Your task to perform on an android device: turn on translation in the chrome app Image 0: 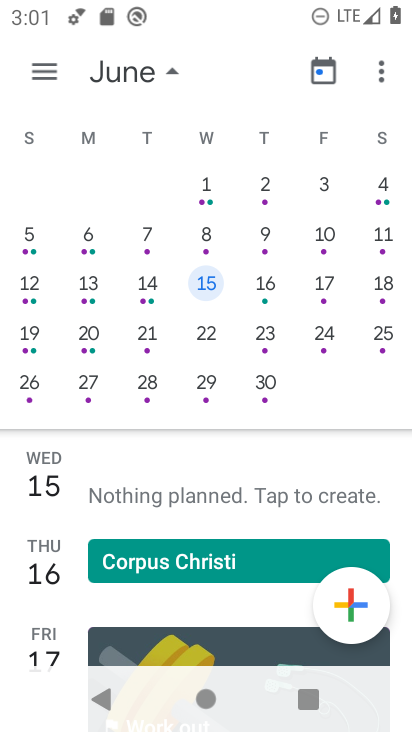
Step 0: press home button
Your task to perform on an android device: turn on translation in the chrome app Image 1: 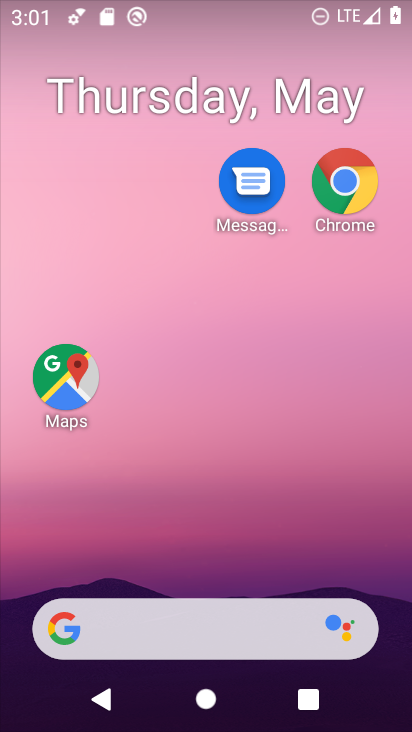
Step 1: drag from (295, 629) to (198, 16)
Your task to perform on an android device: turn on translation in the chrome app Image 2: 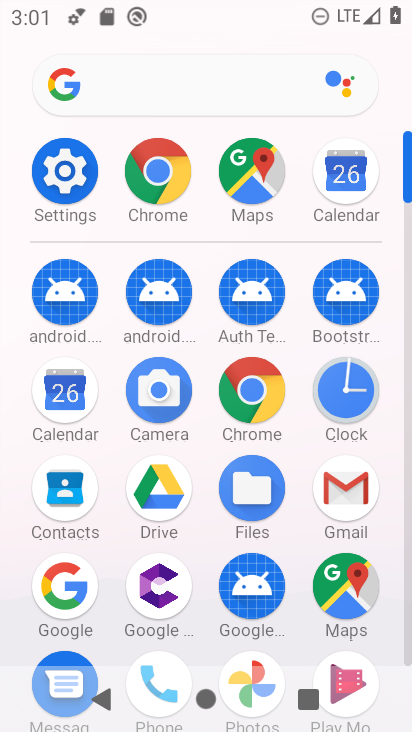
Step 2: click (255, 407)
Your task to perform on an android device: turn on translation in the chrome app Image 3: 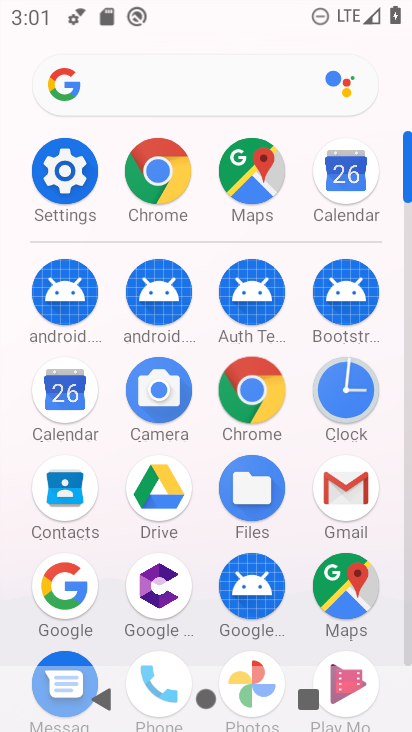
Step 3: click (255, 407)
Your task to perform on an android device: turn on translation in the chrome app Image 4: 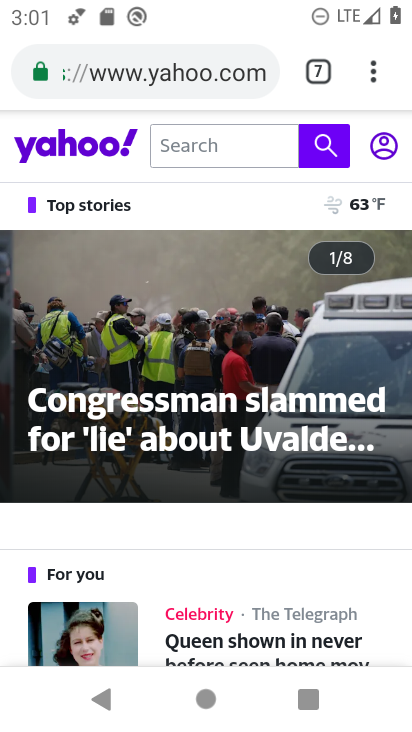
Step 4: drag from (380, 73) to (186, 515)
Your task to perform on an android device: turn on translation in the chrome app Image 5: 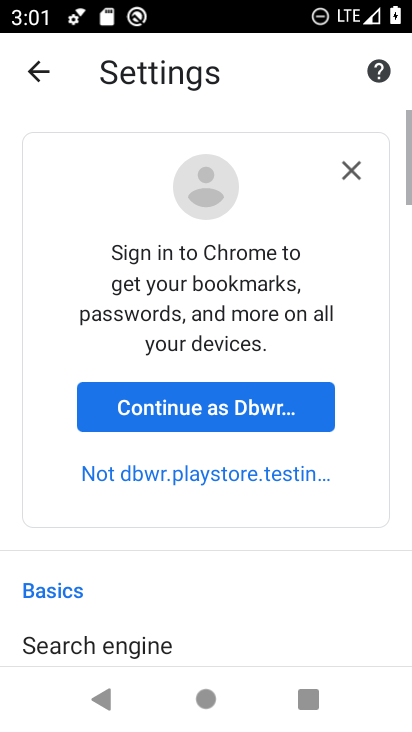
Step 5: drag from (242, 609) to (341, 29)
Your task to perform on an android device: turn on translation in the chrome app Image 6: 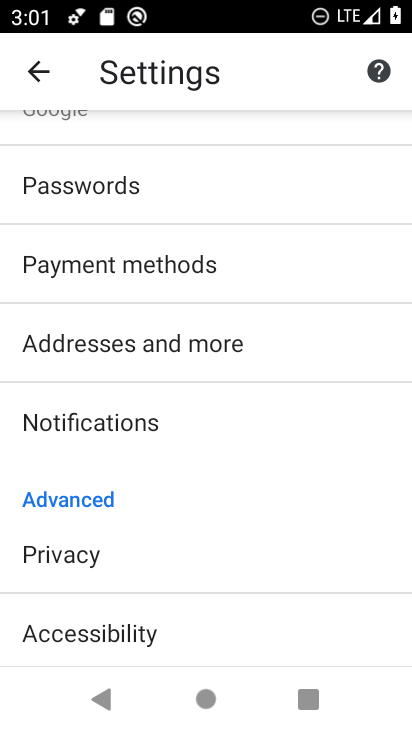
Step 6: drag from (275, 613) to (312, 140)
Your task to perform on an android device: turn on translation in the chrome app Image 7: 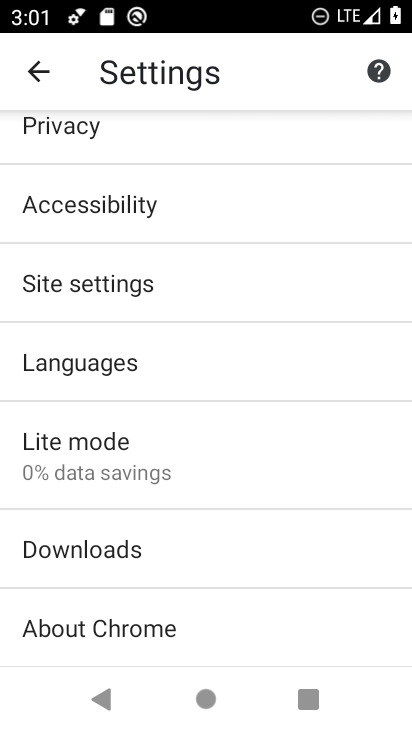
Step 7: click (135, 379)
Your task to perform on an android device: turn on translation in the chrome app Image 8: 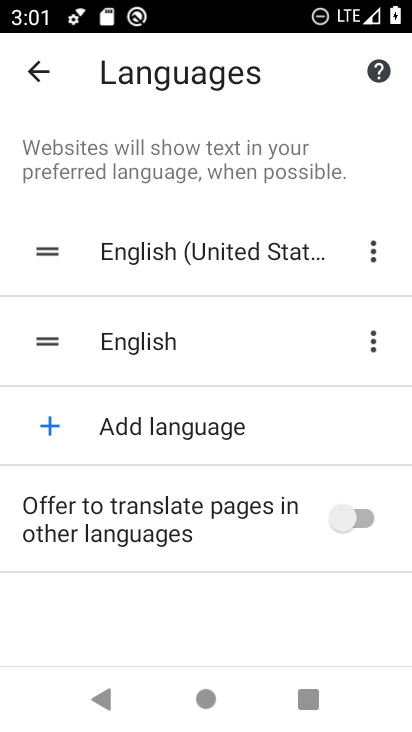
Step 8: click (358, 521)
Your task to perform on an android device: turn on translation in the chrome app Image 9: 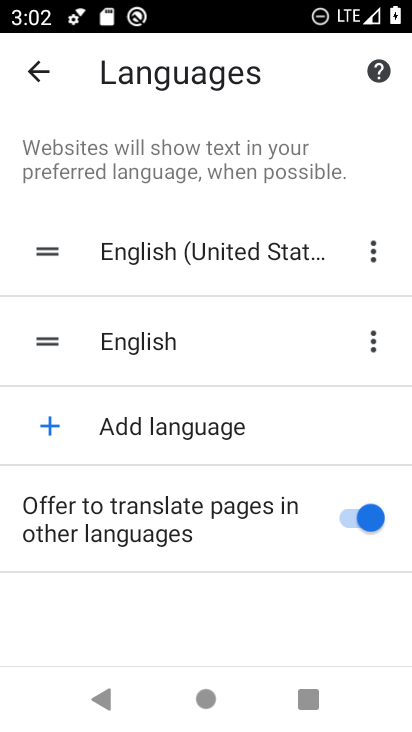
Step 9: task complete